Your task to perform on an android device: Go to settings Image 0: 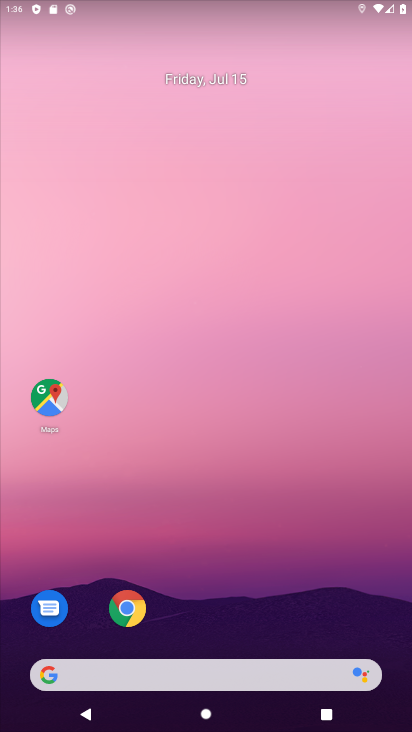
Step 0: drag from (220, 670) to (200, 183)
Your task to perform on an android device: Go to settings Image 1: 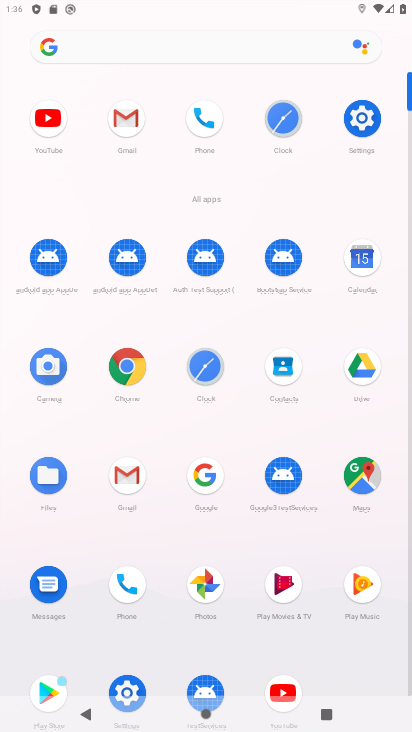
Step 1: click (363, 139)
Your task to perform on an android device: Go to settings Image 2: 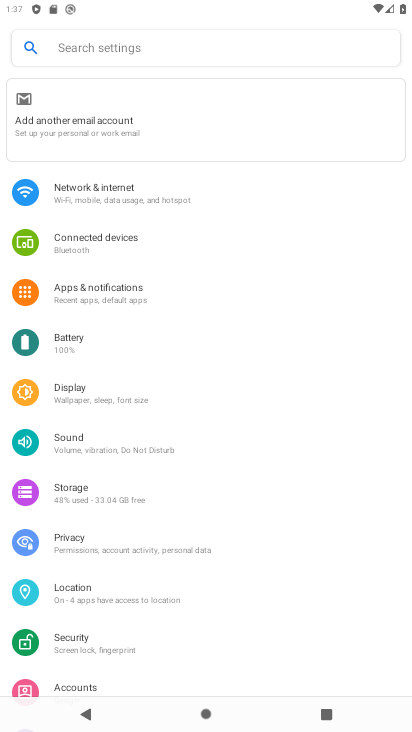
Step 2: task complete